Your task to perform on an android device: turn on translation in the chrome app Image 0: 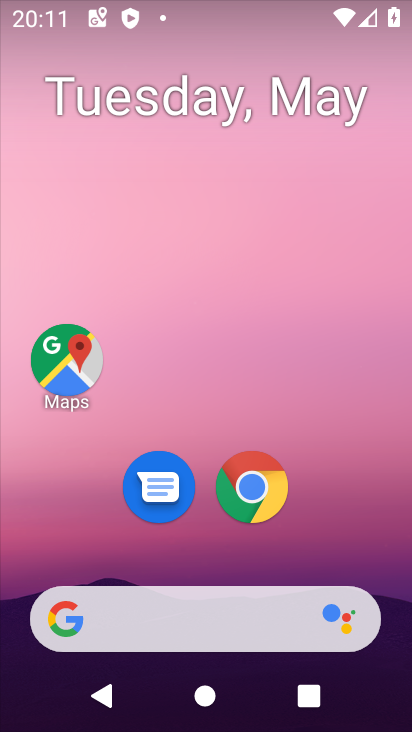
Step 0: drag from (352, 551) to (373, 281)
Your task to perform on an android device: turn on translation in the chrome app Image 1: 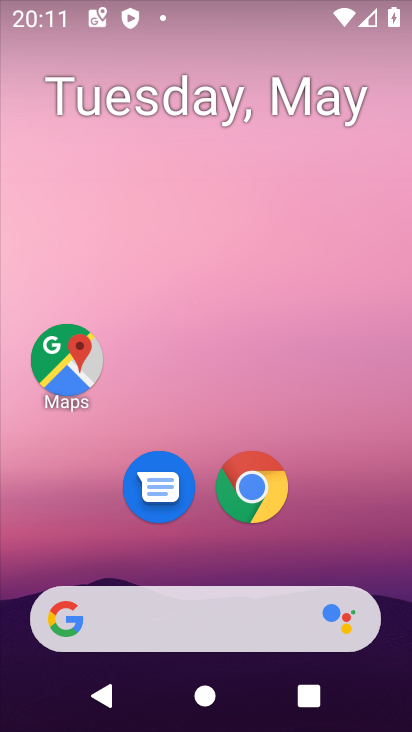
Step 1: drag from (341, 540) to (362, 367)
Your task to perform on an android device: turn on translation in the chrome app Image 2: 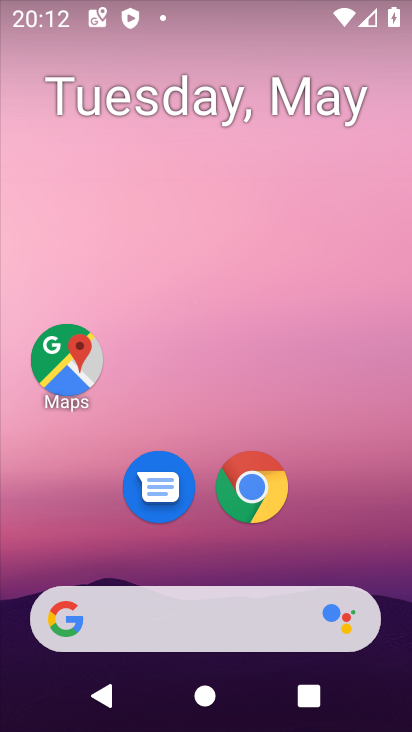
Step 2: click (263, 497)
Your task to perform on an android device: turn on translation in the chrome app Image 3: 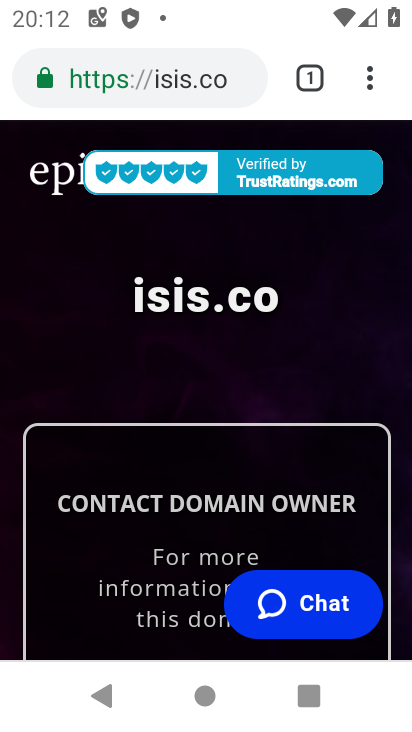
Step 3: click (375, 88)
Your task to perform on an android device: turn on translation in the chrome app Image 4: 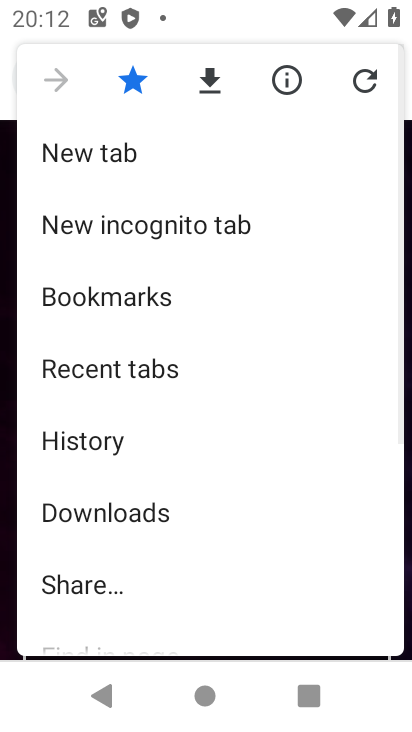
Step 4: drag from (250, 436) to (274, 329)
Your task to perform on an android device: turn on translation in the chrome app Image 5: 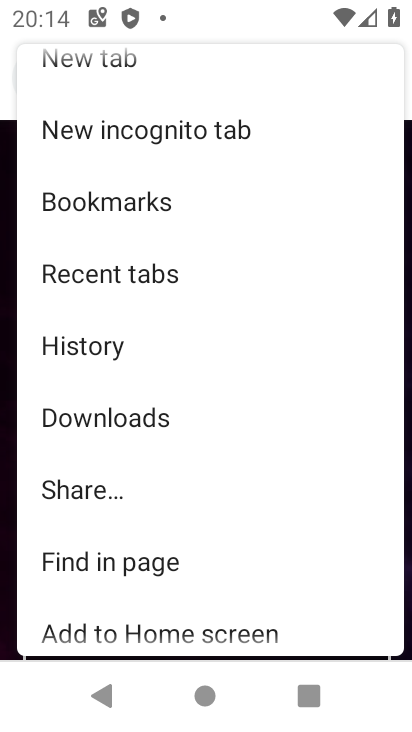
Step 5: drag from (133, 478) to (189, 213)
Your task to perform on an android device: turn on translation in the chrome app Image 6: 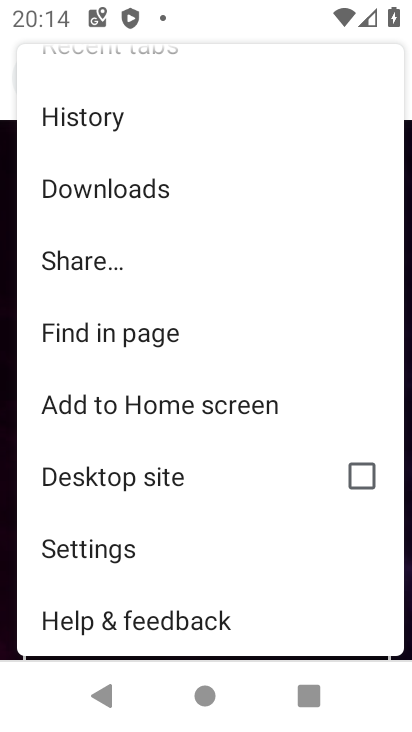
Step 6: click (157, 546)
Your task to perform on an android device: turn on translation in the chrome app Image 7: 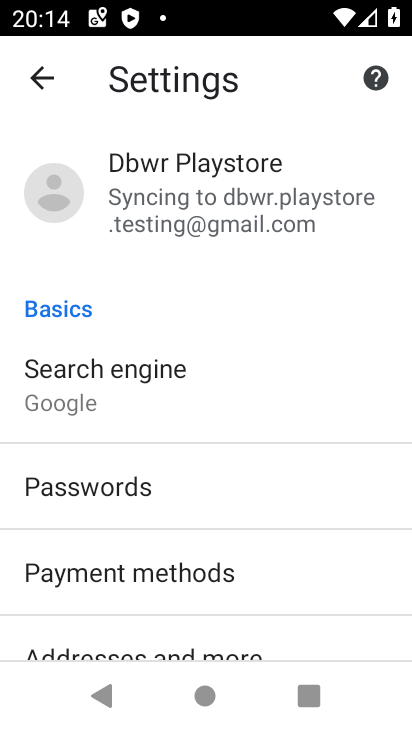
Step 7: drag from (182, 554) to (221, 339)
Your task to perform on an android device: turn on translation in the chrome app Image 8: 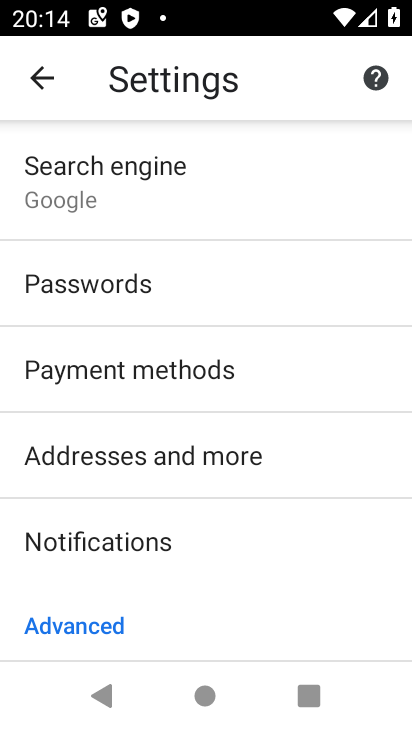
Step 8: drag from (222, 559) to (240, 213)
Your task to perform on an android device: turn on translation in the chrome app Image 9: 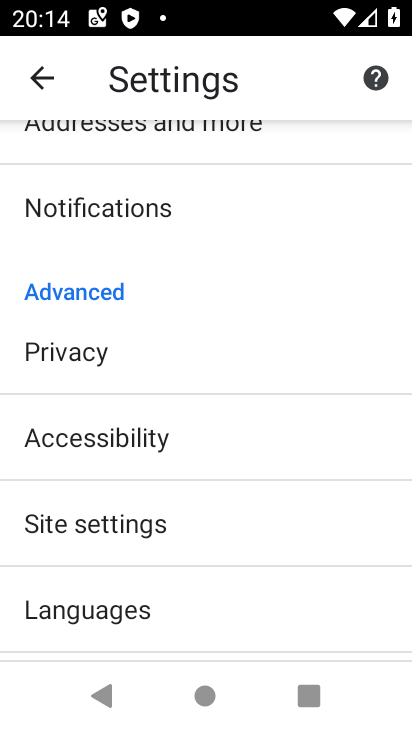
Step 9: click (243, 593)
Your task to perform on an android device: turn on translation in the chrome app Image 10: 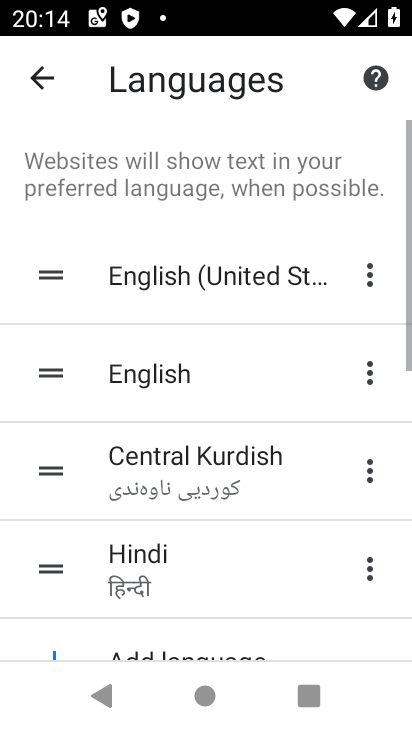
Step 10: drag from (243, 593) to (276, 241)
Your task to perform on an android device: turn on translation in the chrome app Image 11: 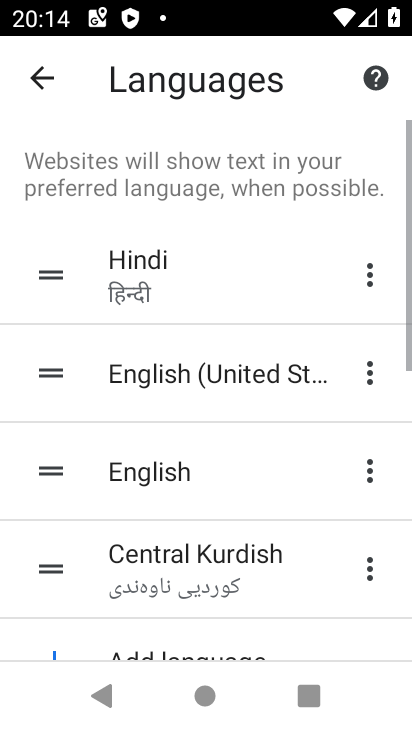
Step 11: drag from (288, 603) to (280, 230)
Your task to perform on an android device: turn on translation in the chrome app Image 12: 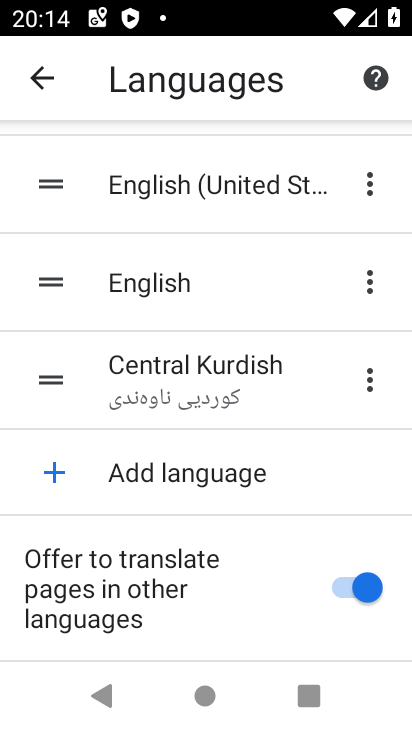
Step 12: click (298, 564)
Your task to perform on an android device: turn on translation in the chrome app Image 13: 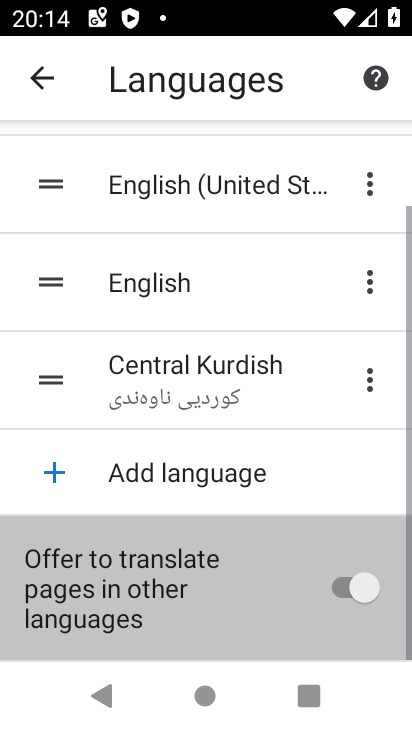
Step 13: click (298, 564)
Your task to perform on an android device: turn on translation in the chrome app Image 14: 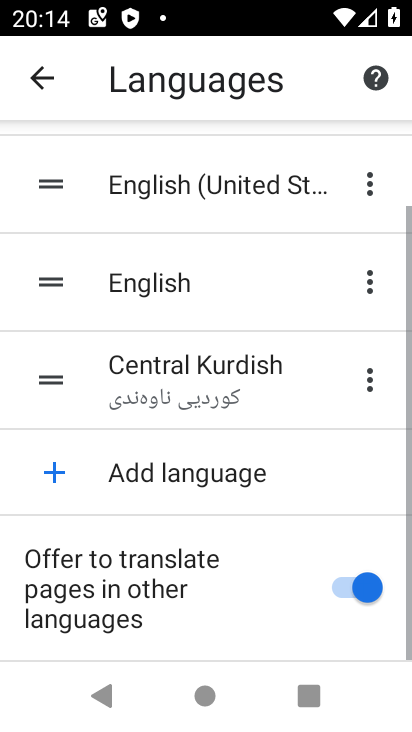
Step 14: task complete